Your task to perform on an android device: find photos in the google photos app Image 0: 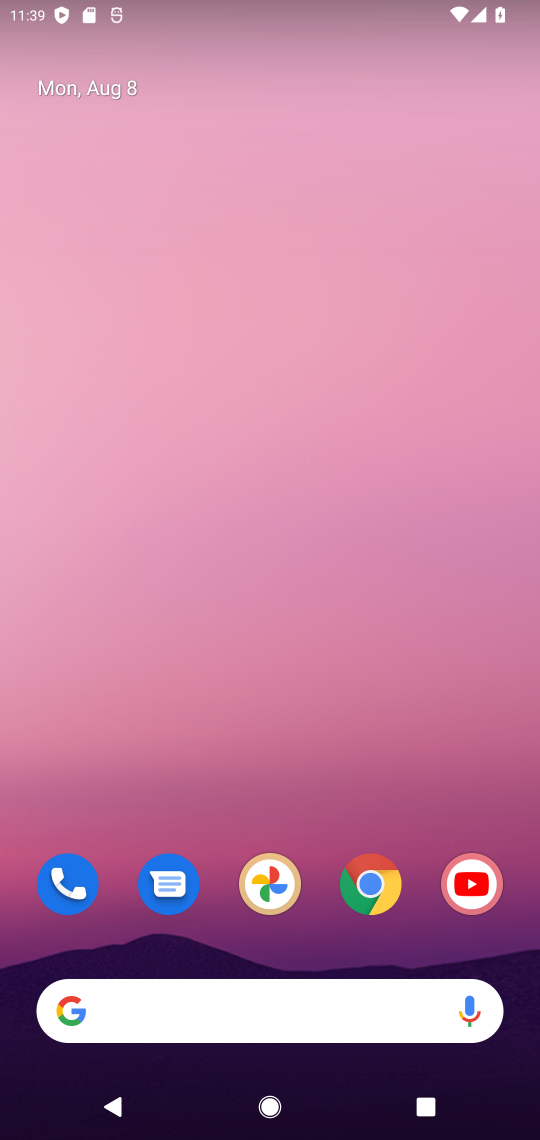
Step 0: click (287, 875)
Your task to perform on an android device: find photos in the google photos app Image 1: 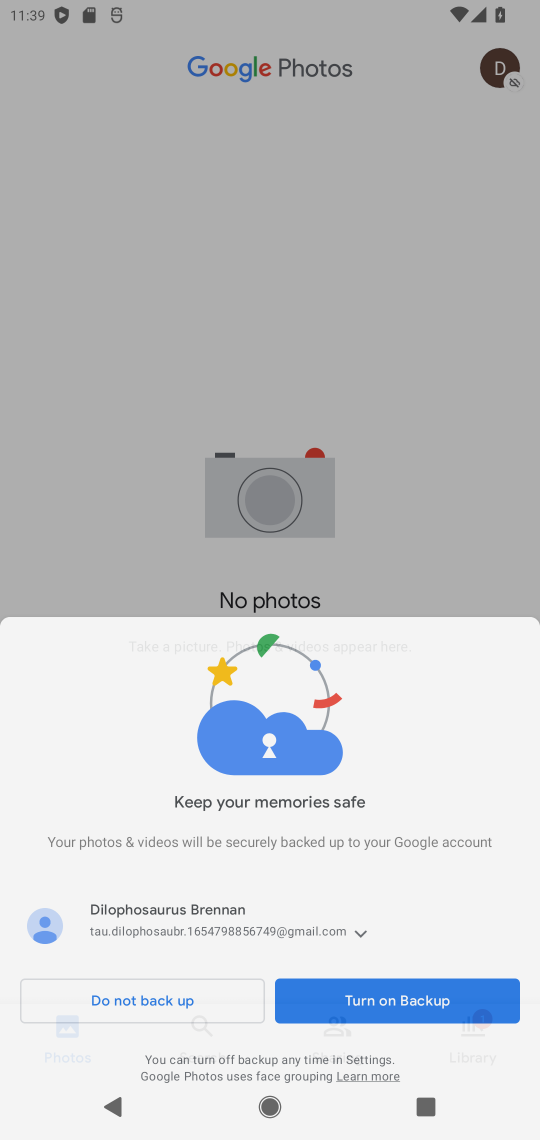
Step 1: click (212, 1030)
Your task to perform on an android device: find photos in the google photos app Image 2: 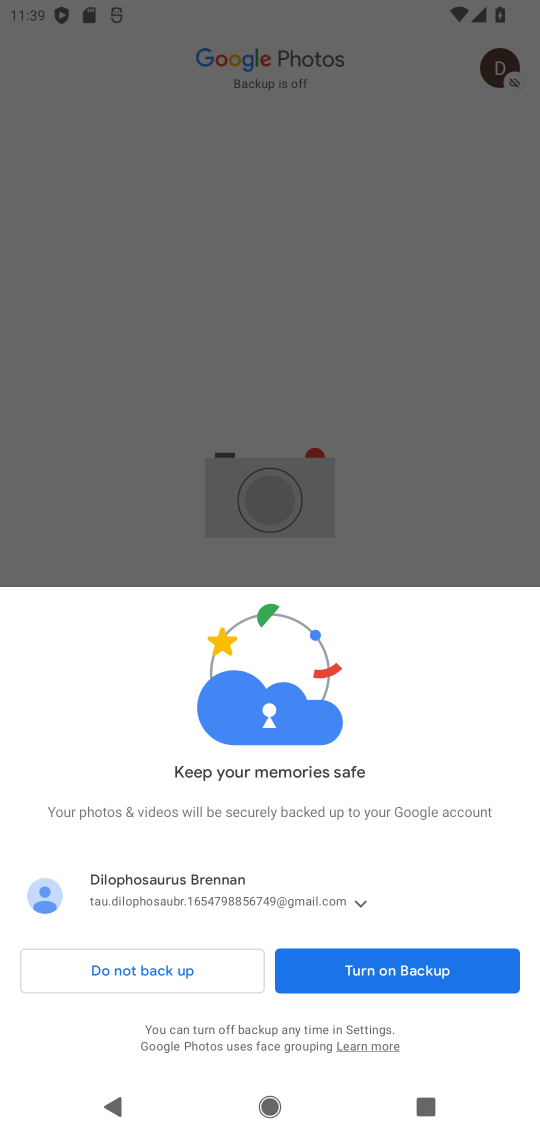
Step 2: click (203, 963)
Your task to perform on an android device: find photos in the google photos app Image 3: 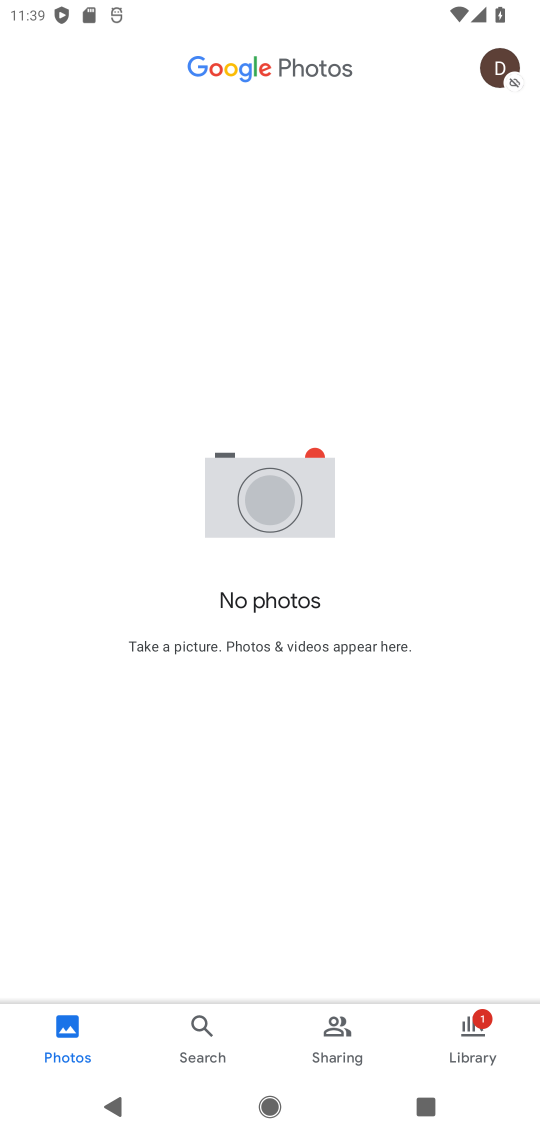
Step 3: task complete